Your task to perform on an android device: When is my next meeting? Image 0: 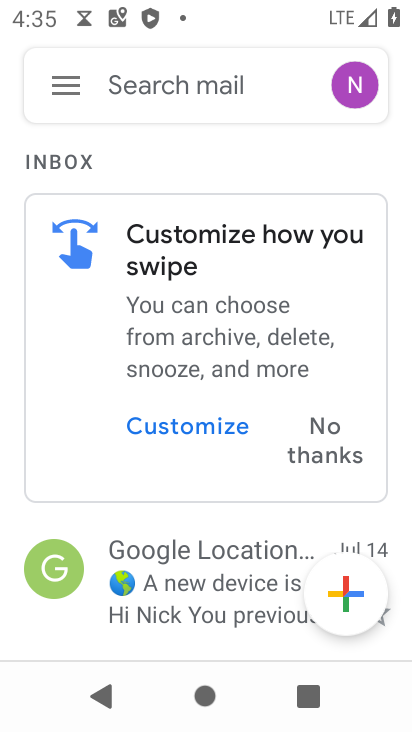
Step 0: press back button
Your task to perform on an android device: When is my next meeting? Image 1: 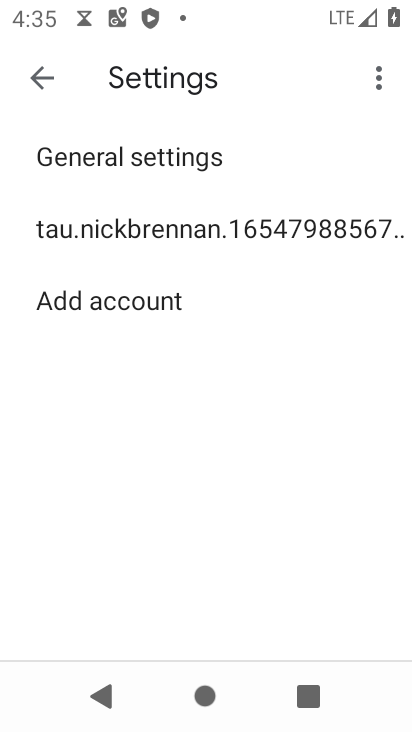
Step 1: press back button
Your task to perform on an android device: When is my next meeting? Image 2: 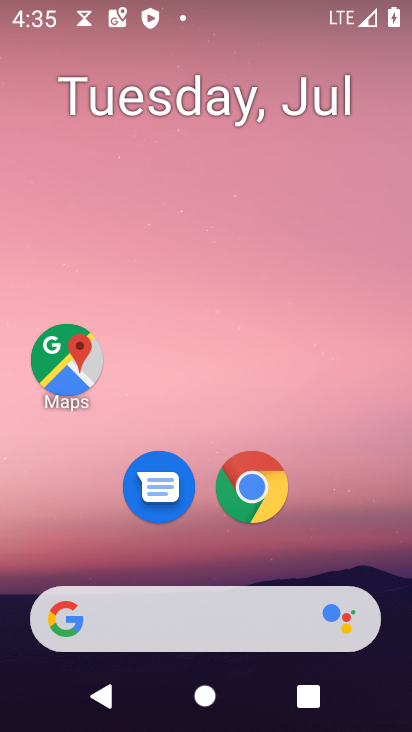
Step 2: drag from (174, 558) to (235, 0)
Your task to perform on an android device: When is my next meeting? Image 3: 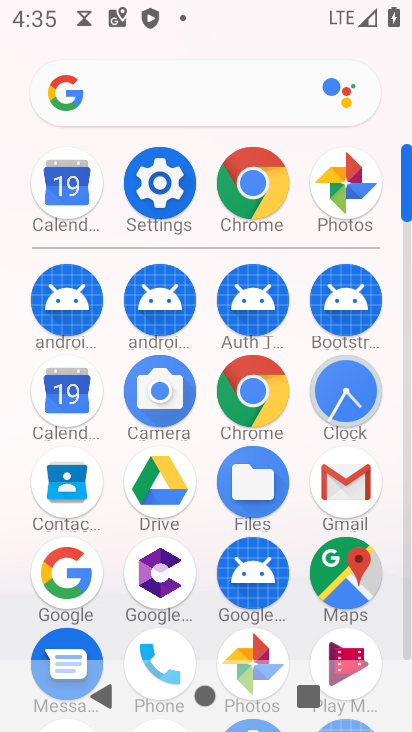
Step 3: click (60, 396)
Your task to perform on an android device: When is my next meeting? Image 4: 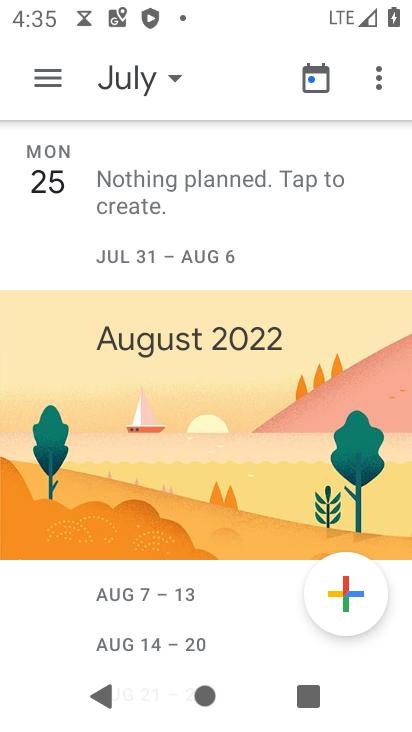
Step 4: drag from (192, 576) to (234, 231)
Your task to perform on an android device: When is my next meeting? Image 5: 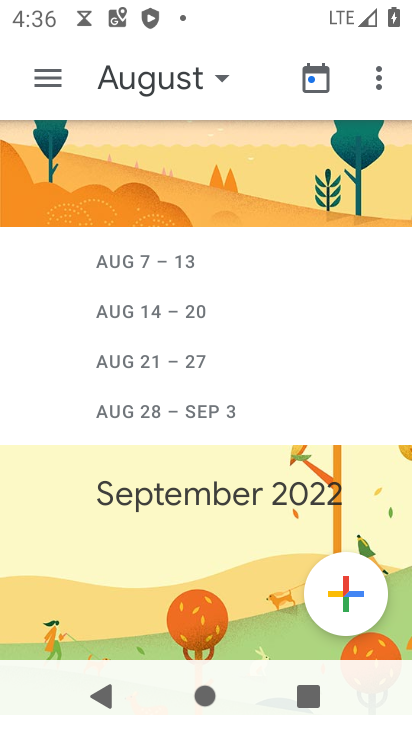
Step 5: drag from (220, 309) to (220, 682)
Your task to perform on an android device: When is my next meeting? Image 6: 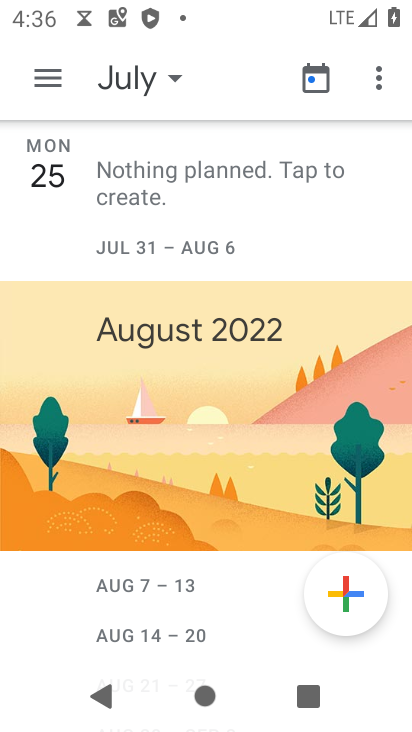
Step 6: drag from (197, 299) to (188, 637)
Your task to perform on an android device: When is my next meeting? Image 7: 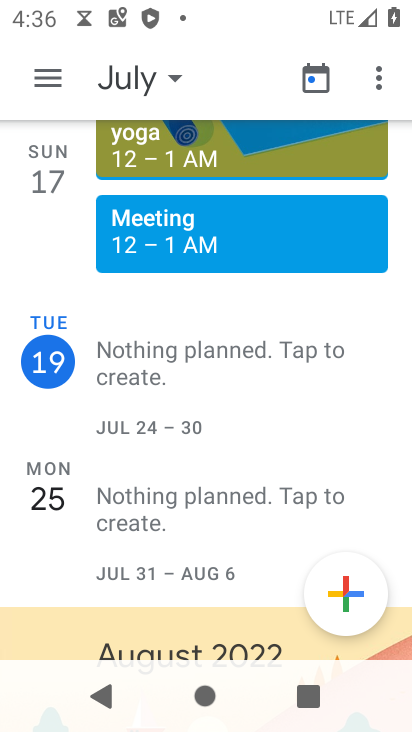
Step 7: click (164, 238)
Your task to perform on an android device: When is my next meeting? Image 8: 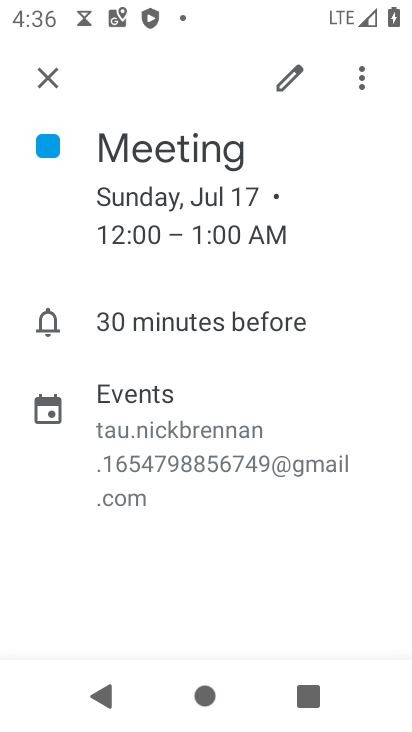
Step 8: task complete